Your task to perform on an android device: Go to location settings Image 0: 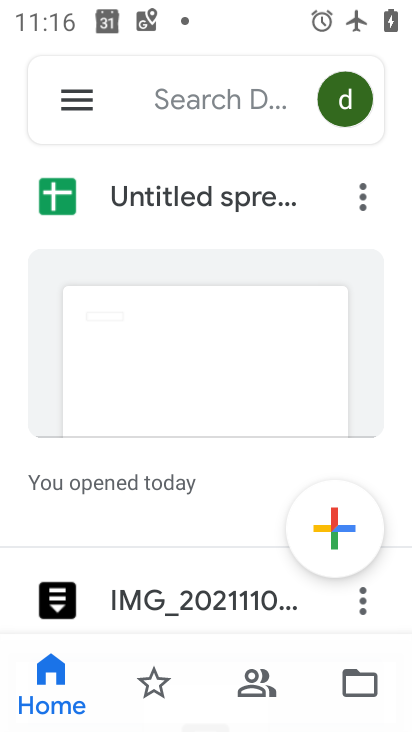
Step 0: press home button
Your task to perform on an android device: Go to location settings Image 1: 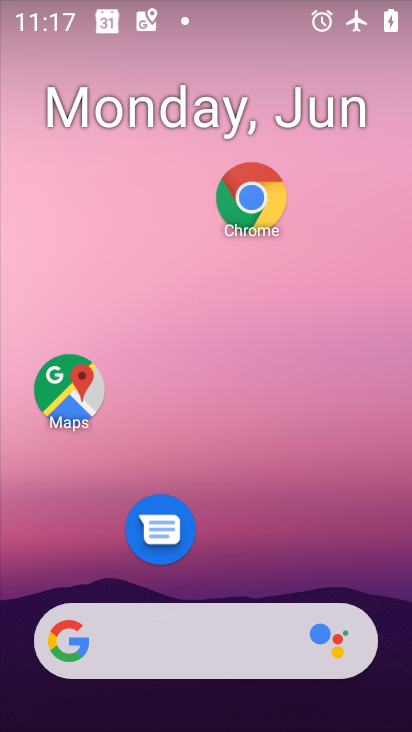
Step 1: drag from (199, 563) to (194, 283)
Your task to perform on an android device: Go to location settings Image 2: 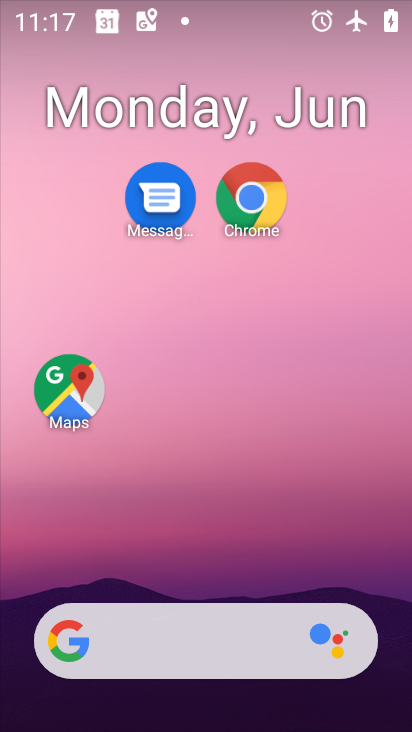
Step 2: drag from (194, 575) to (194, 161)
Your task to perform on an android device: Go to location settings Image 3: 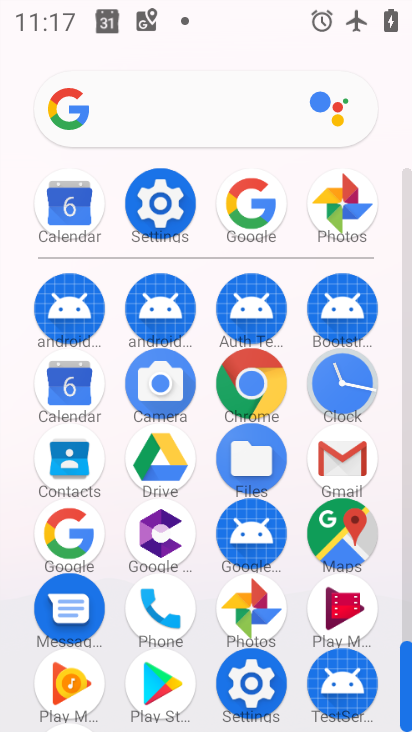
Step 3: click (134, 194)
Your task to perform on an android device: Go to location settings Image 4: 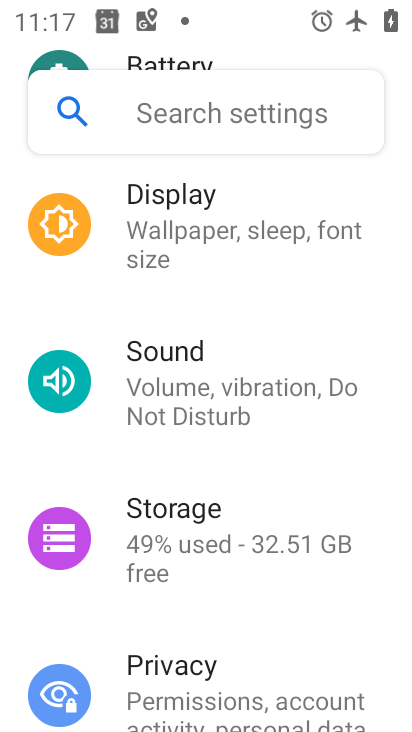
Step 4: drag from (216, 555) to (235, 238)
Your task to perform on an android device: Go to location settings Image 5: 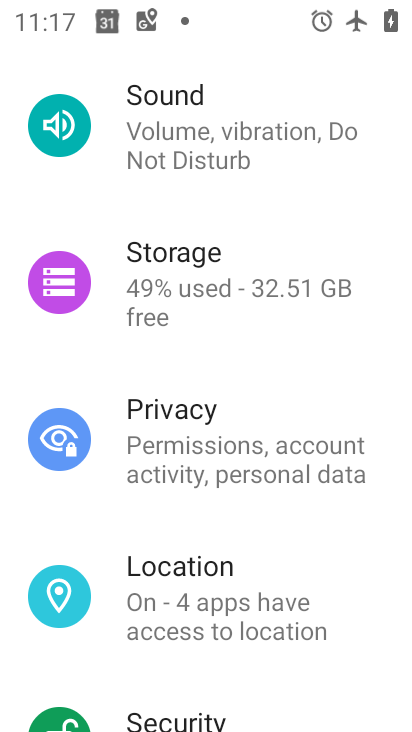
Step 5: click (236, 565)
Your task to perform on an android device: Go to location settings Image 6: 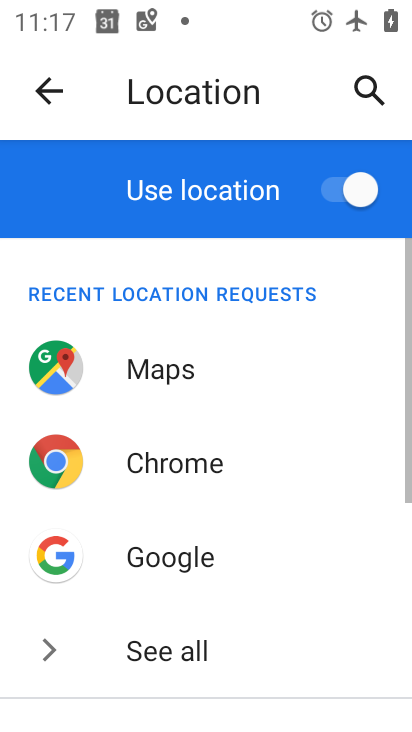
Step 6: task complete